Your task to perform on an android device: open the mobile data screen to see how much data has been used Image 0: 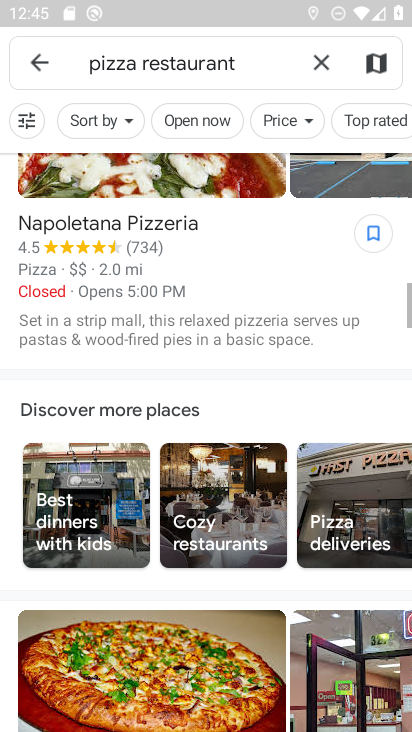
Step 0: press home button
Your task to perform on an android device: open the mobile data screen to see how much data has been used Image 1: 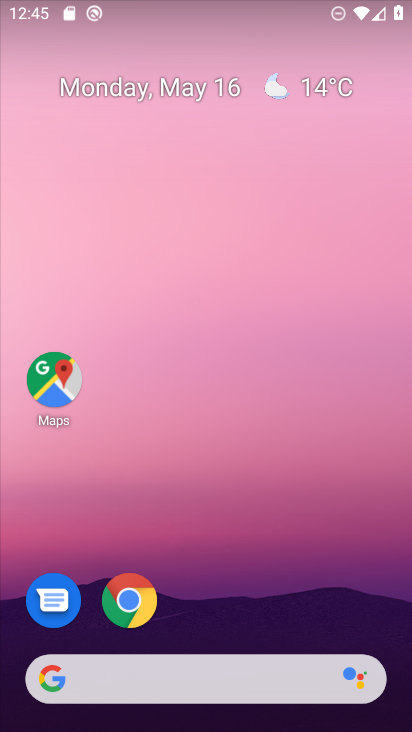
Step 1: drag from (197, 632) to (215, 31)
Your task to perform on an android device: open the mobile data screen to see how much data has been used Image 2: 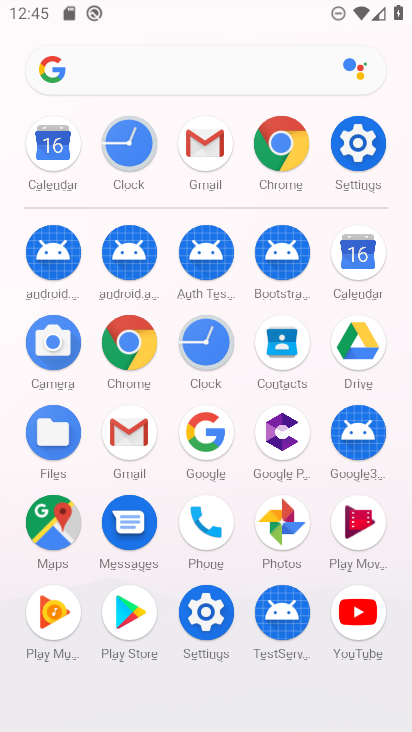
Step 2: click (202, 609)
Your task to perform on an android device: open the mobile data screen to see how much data has been used Image 3: 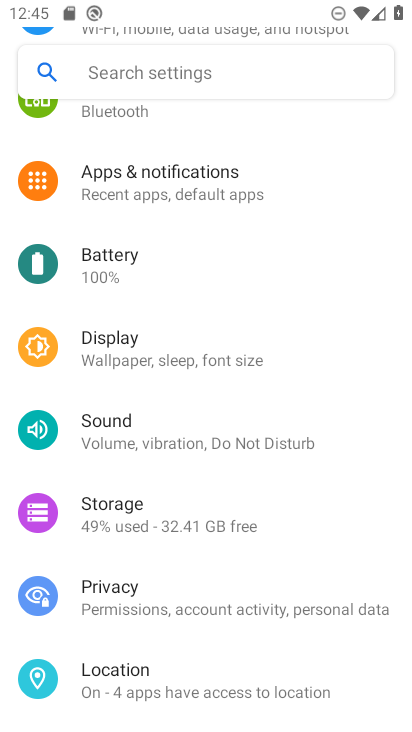
Step 3: drag from (193, 178) to (191, 727)
Your task to perform on an android device: open the mobile data screen to see how much data has been used Image 4: 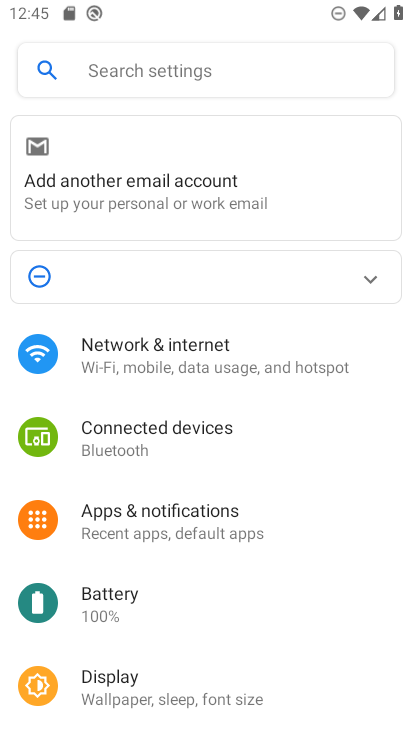
Step 4: click (224, 354)
Your task to perform on an android device: open the mobile data screen to see how much data has been used Image 5: 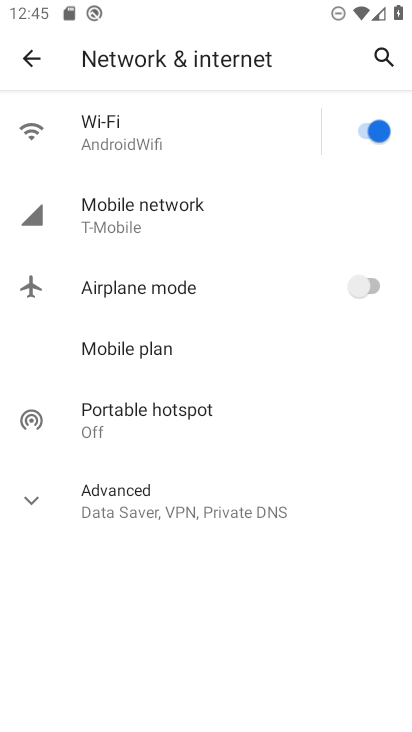
Step 5: click (37, 494)
Your task to perform on an android device: open the mobile data screen to see how much data has been used Image 6: 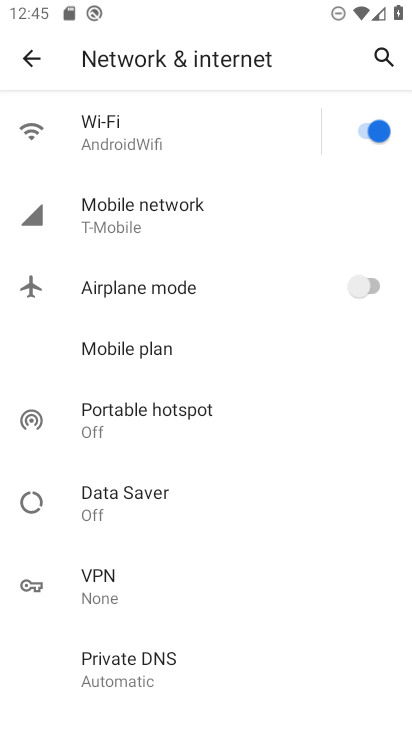
Step 6: click (185, 217)
Your task to perform on an android device: open the mobile data screen to see how much data has been used Image 7: 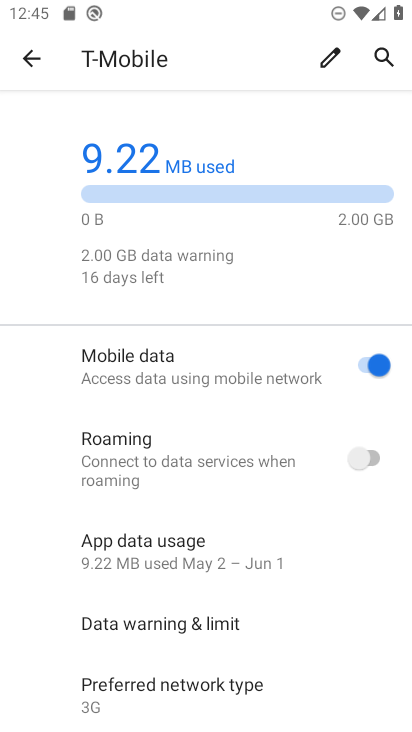
Step 7: drag from (261, 656) to (266, 617)
Your task to perform on an android device: open the mobile data screen to see how much data has been used Image 8: 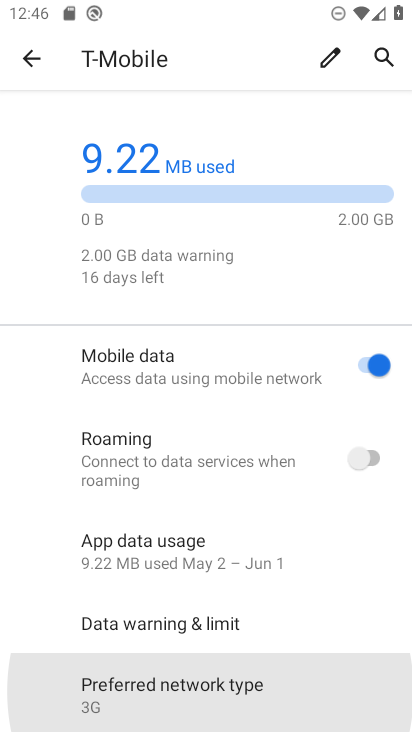
Step 8: drag from (266, 459) to (269, 233)
Your task to perform on an android device: open the mobile data screen to see how much data has been used Image 9: 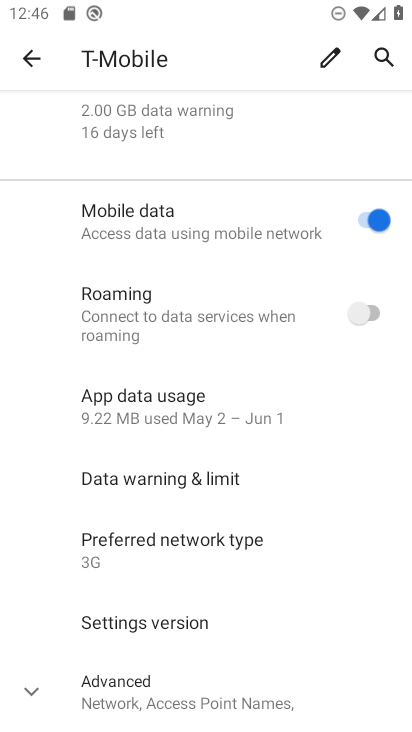
Step 9: click (228, 403)
Your task to perform on an android device: open the mobile data screen to see how much data has been used Image 10: 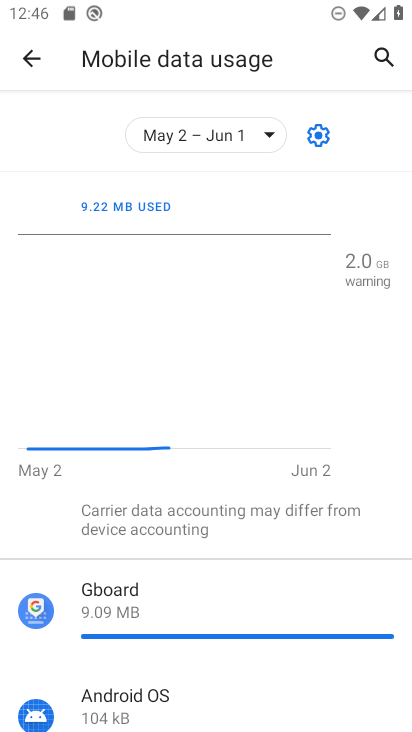
Step 10: task complete